Your task to perform on an android device: Check the weather Image 0: 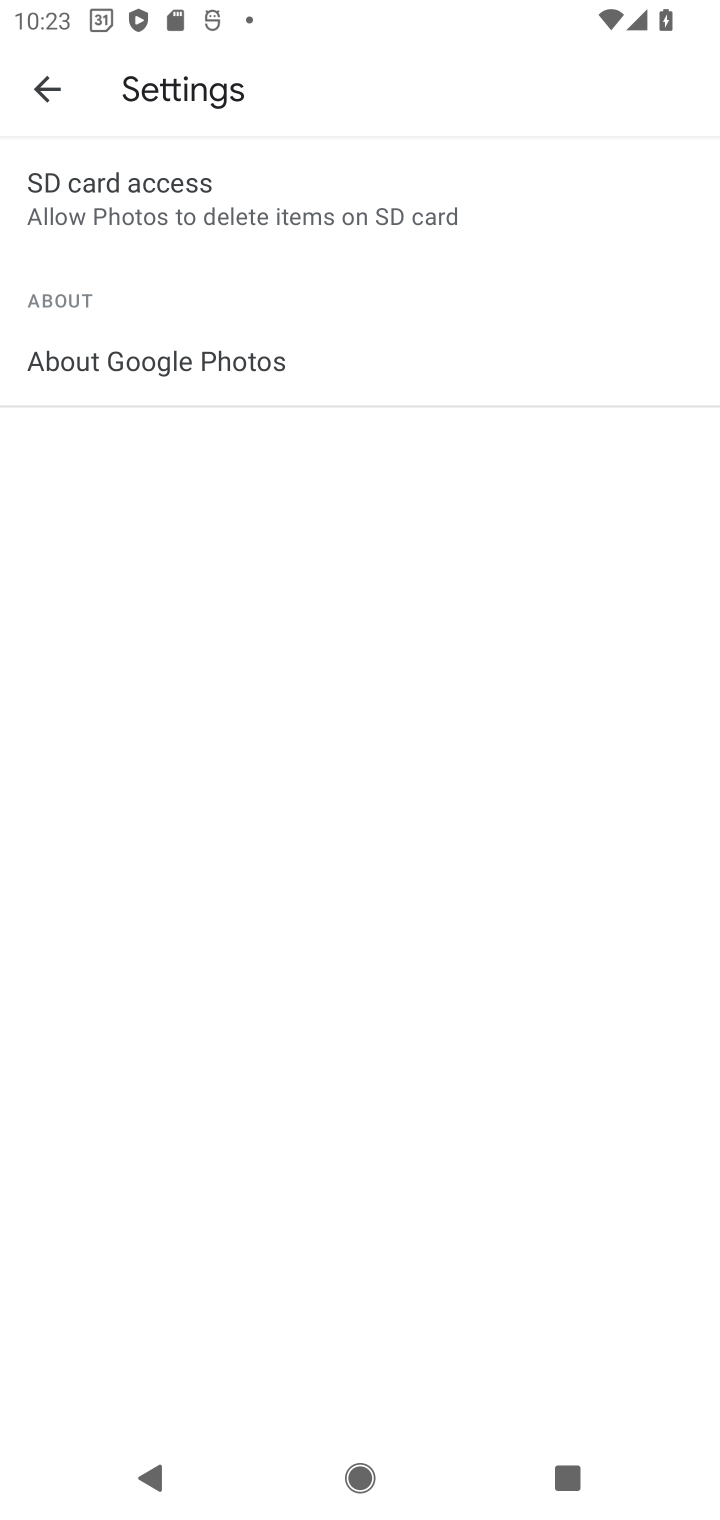
Step 0: press home button
Your task to perform on an android device: Check the weather Image 1: 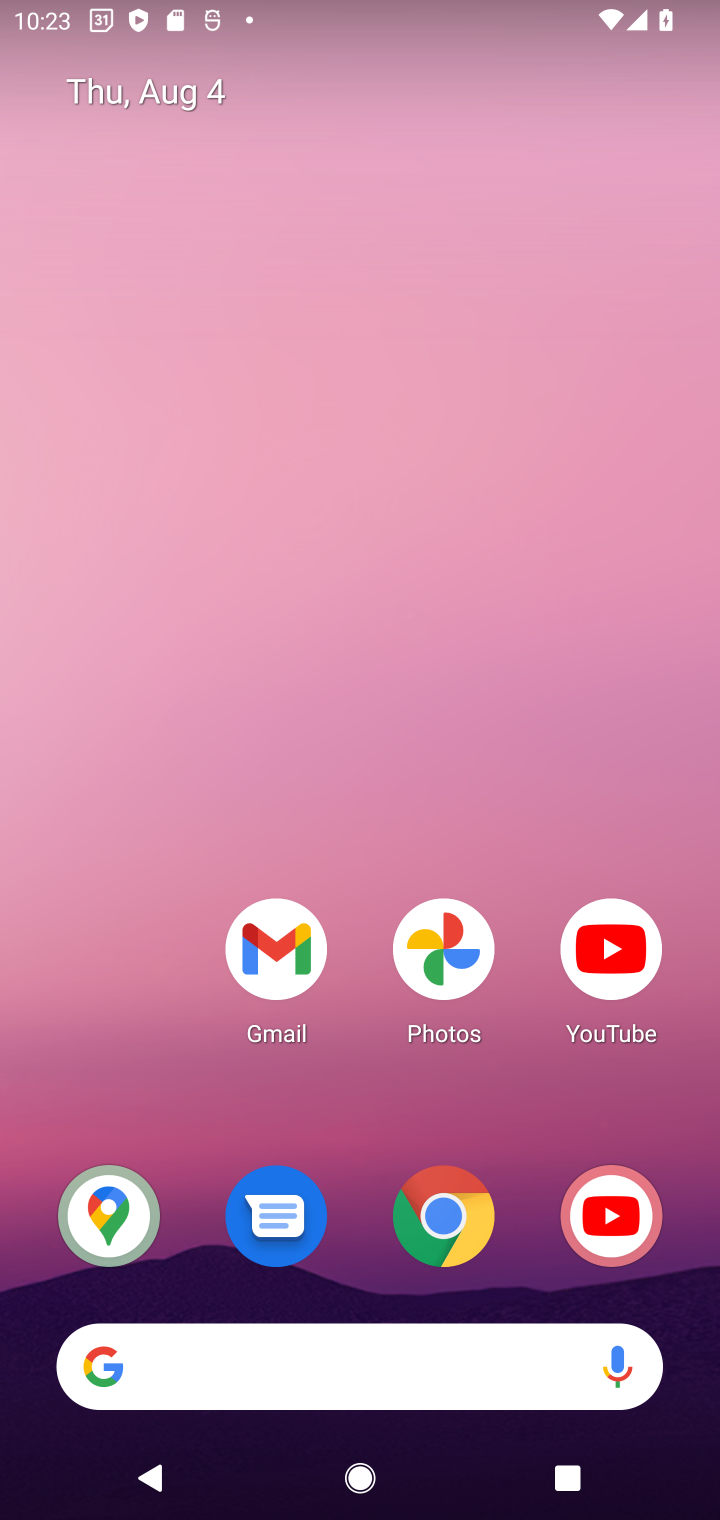
Step 1: drag from (238, 1383) to (290, 568)
Your task to perform on an android device: Check the weather Image 2: 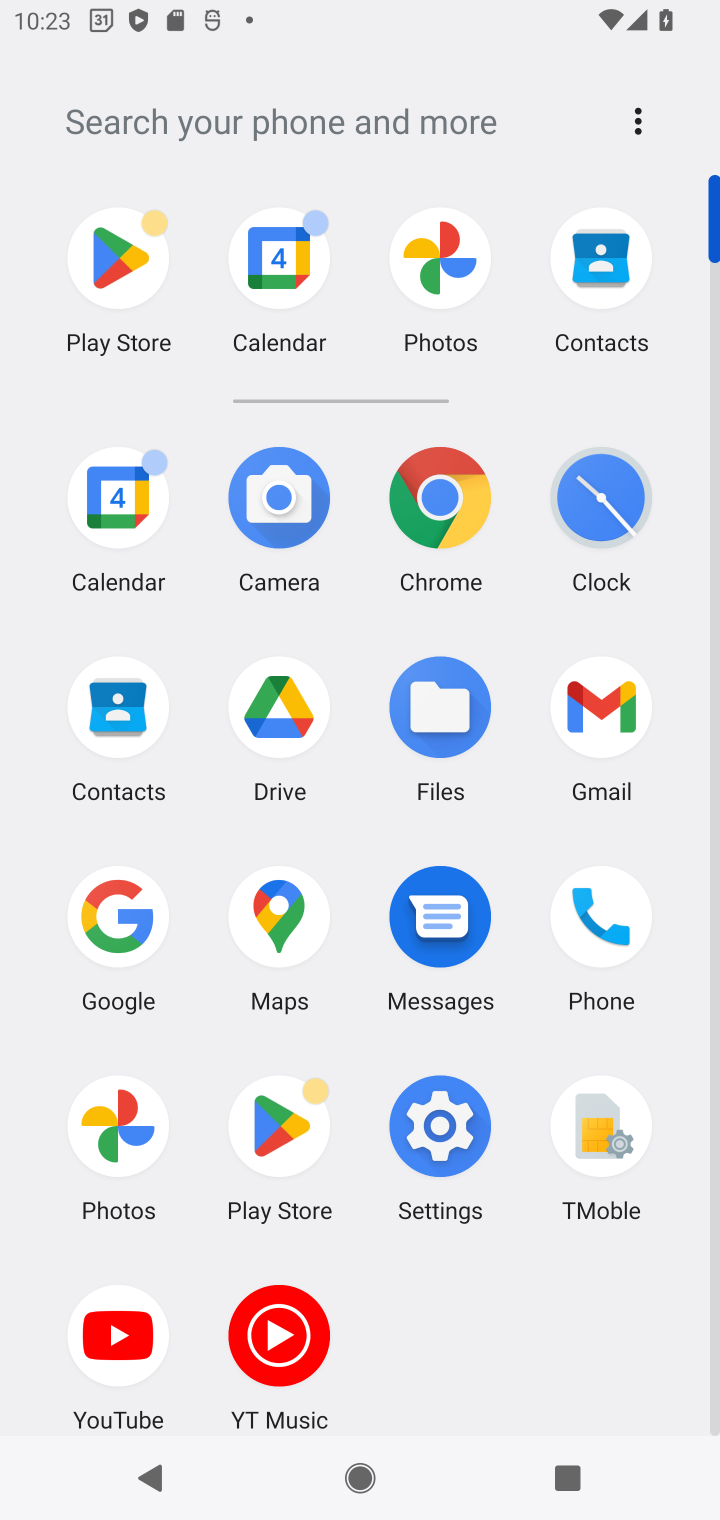
Step 2: click (117, 916)
Your task to perform on an android device: Check the weather Image 3: 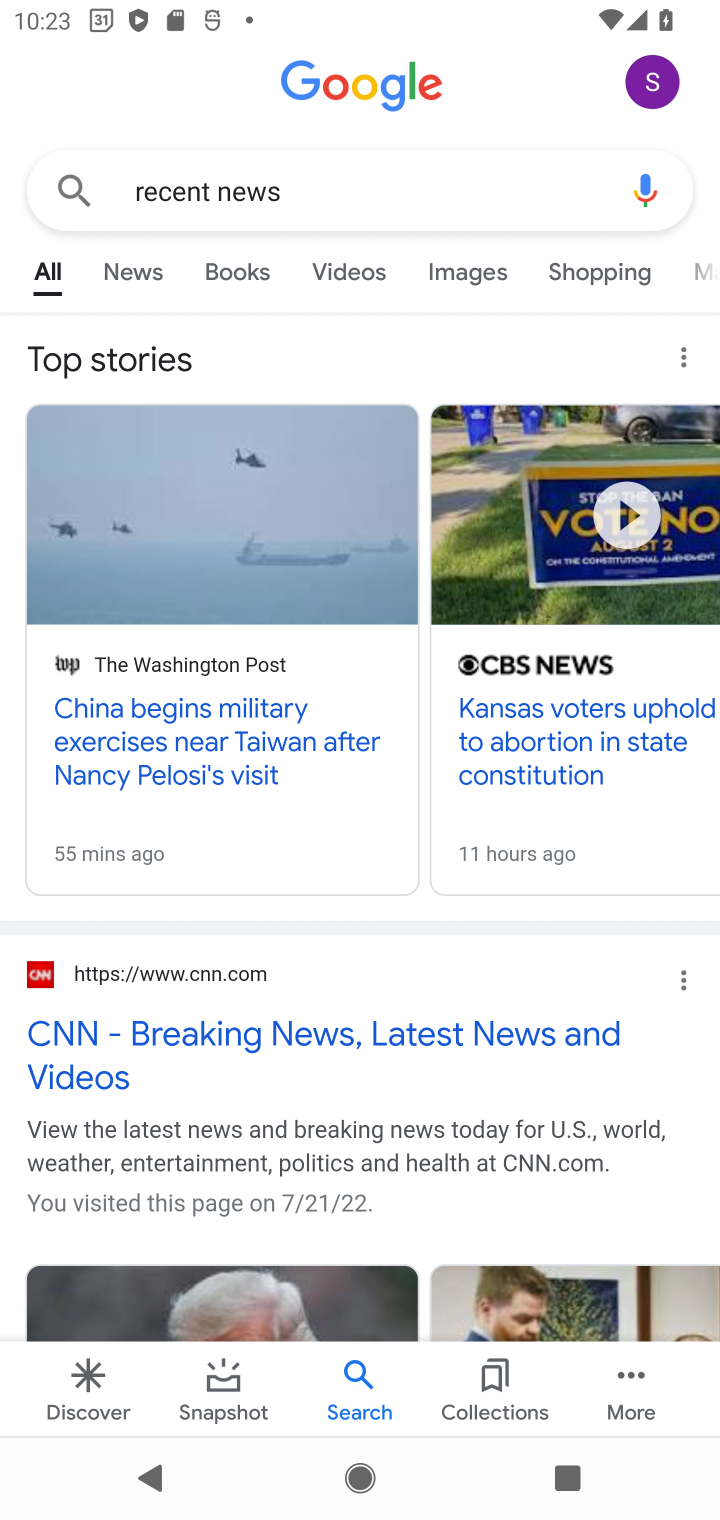
Step 3: click (427, 182)
Your task to perform on an android device: Check the weather Image 4: 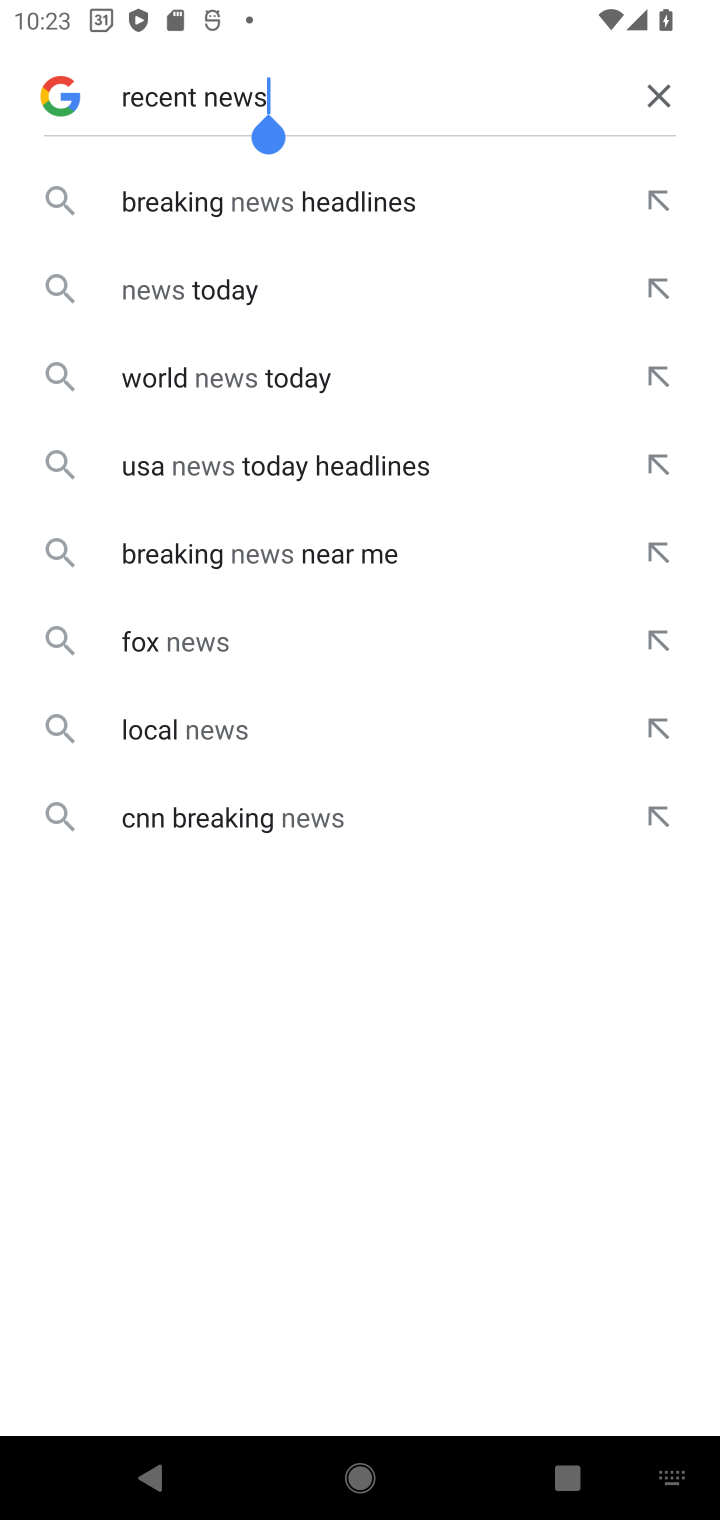
Step 4: click (657, 86)
Your task to perform on an android device: Check the weather Image 5: 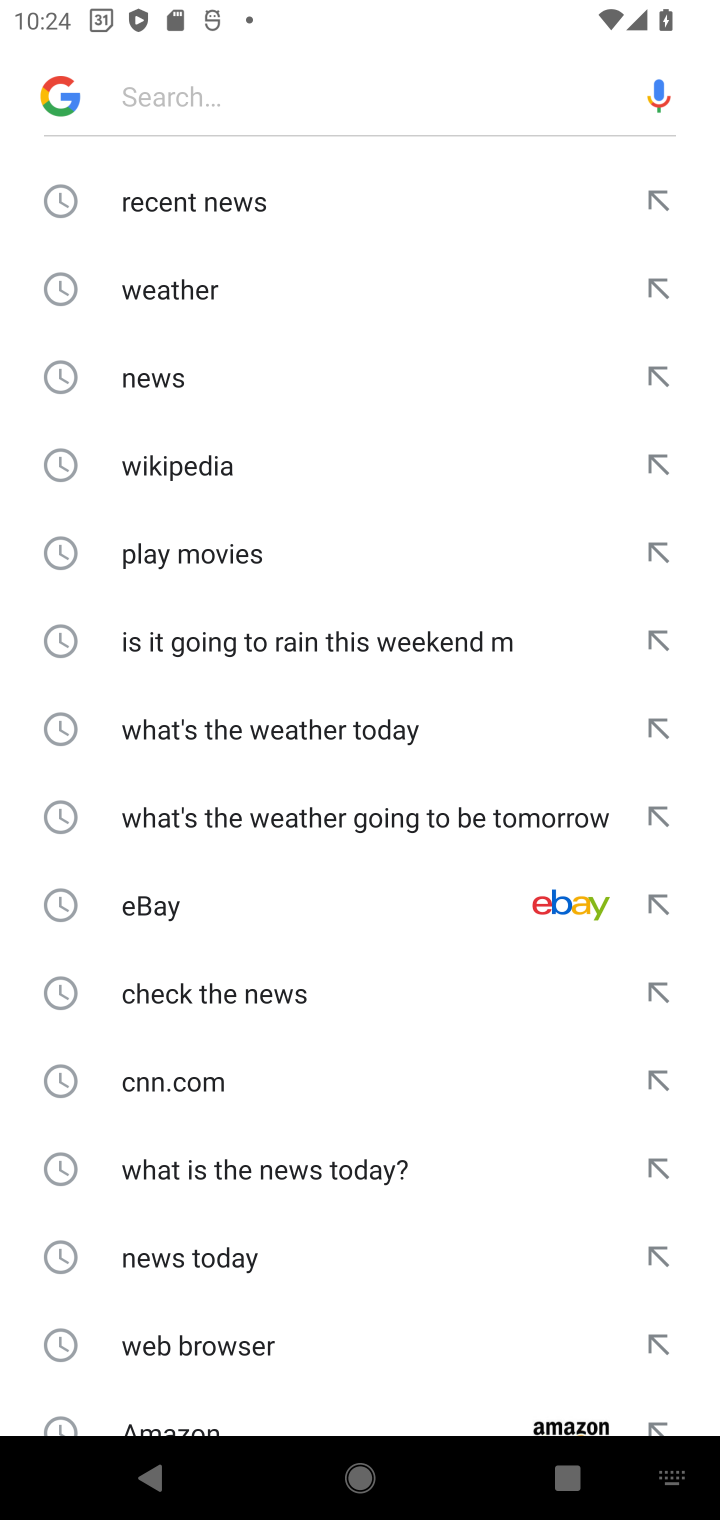
Step 5: click (178, 282)
Your task to perform on an android device: Check the weather Image 6: 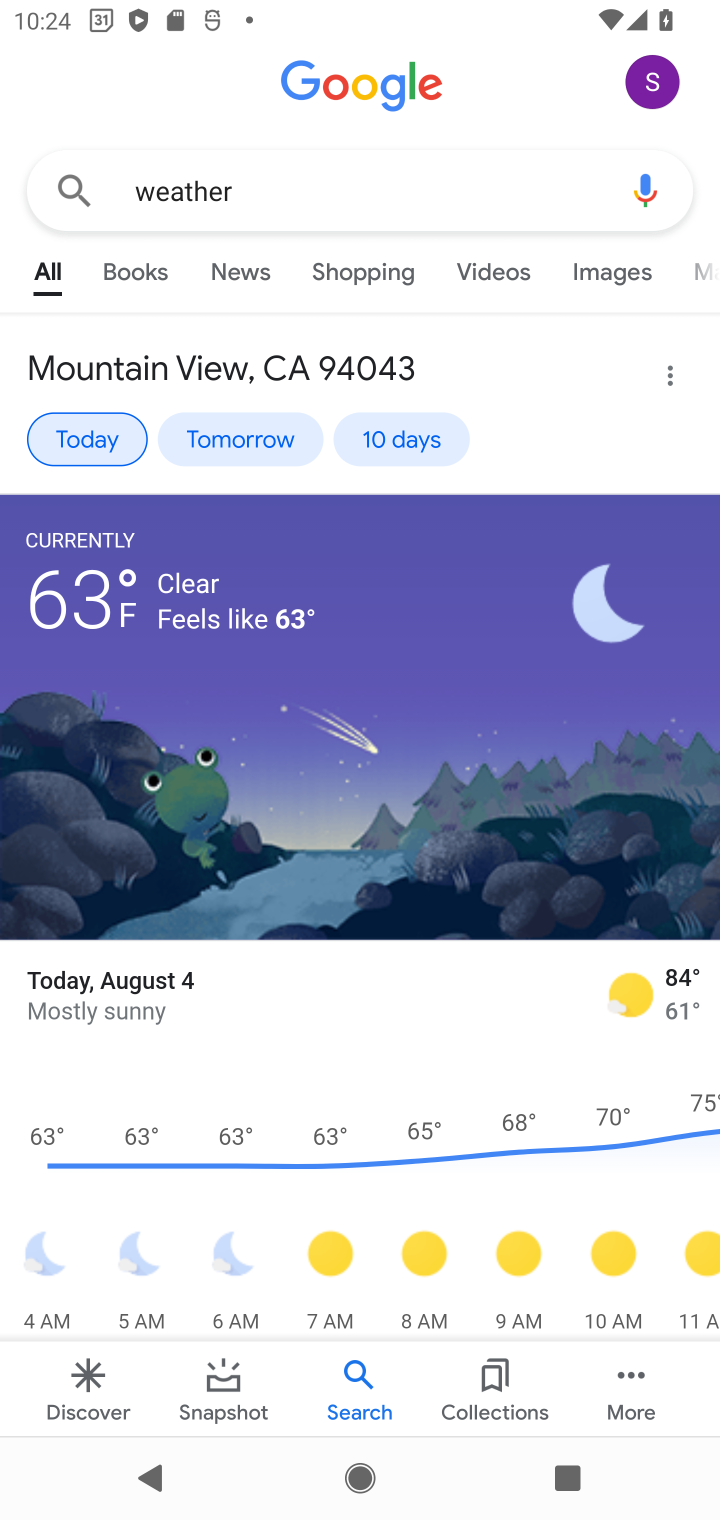
Step 6: task complete